Your task to perform on an android device: Open Amazon Image 0: 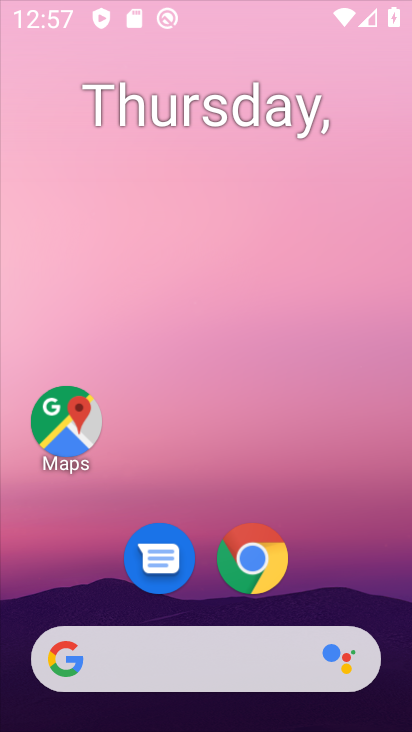
Step 0: click (298, 33)
Your task to perform on an android device: Open Amazon Image 1: 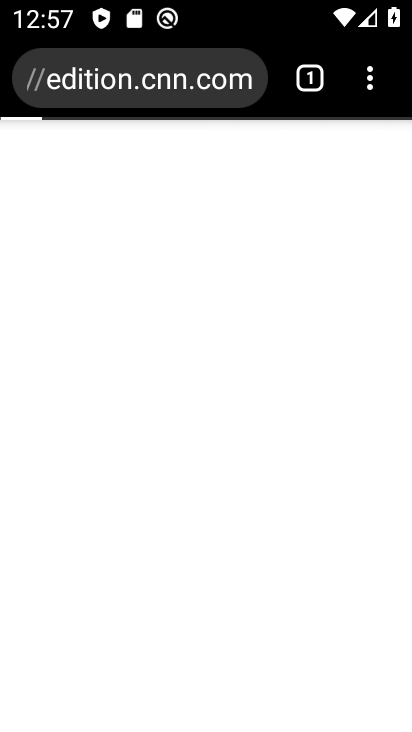
Step 1: press home button
Your task to perform on an android device: Open Amazon Image 2: 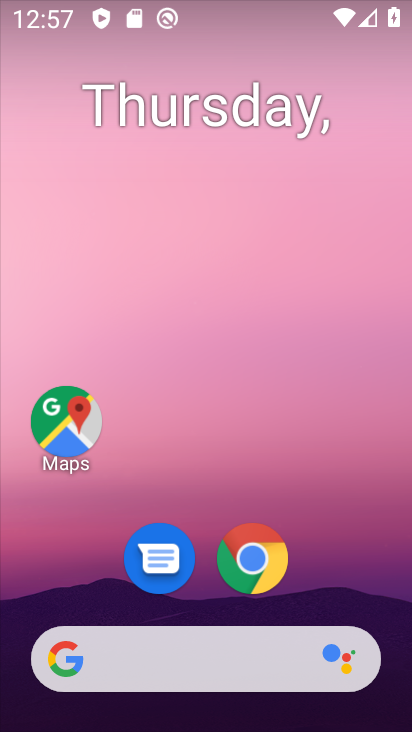
Step 2: drag from (322, 508) to (298, 12)
Your task to perform on an android device: Open Amazon Image 3: 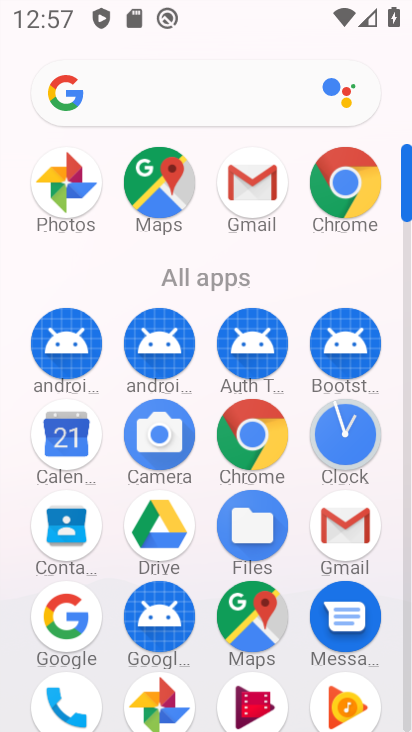
Step 3: click (347, 195)
Your task to perform on an android device: Open Amazon Image 4: 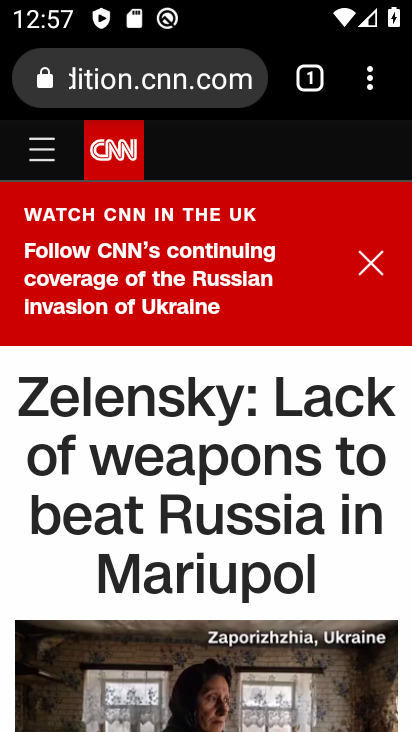
Step 4: drag from (370, 93) to (109, 157)
Your task to perform on an android device: Open Amazon Image 5: 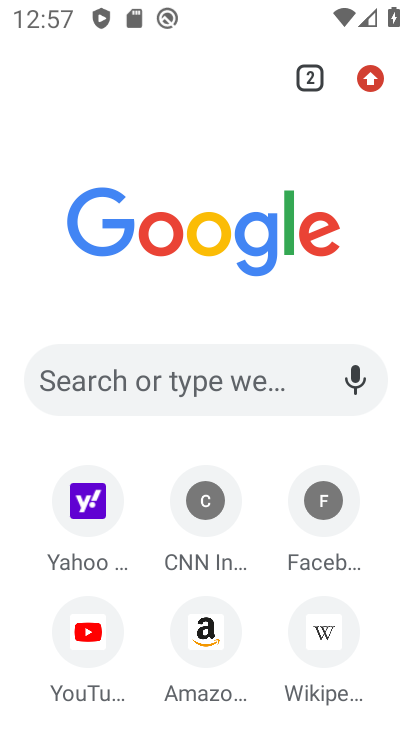
Step 5: click (203, 632)
Your task to perform on an android device: Open Amazon Image 6: 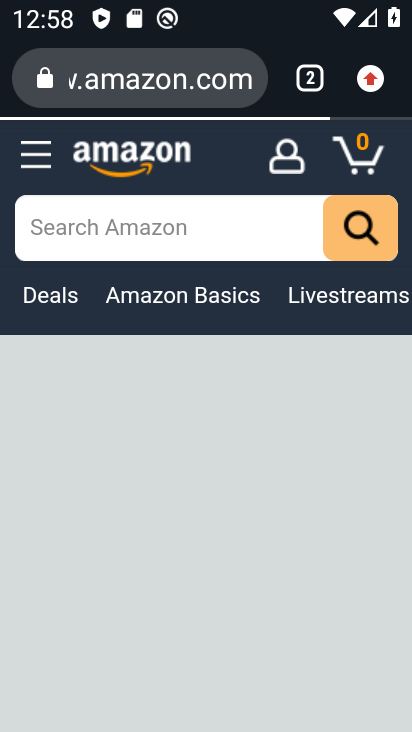
Step 6: task complete